Your task to perform on an android device: When is my next meeting? Image 0: 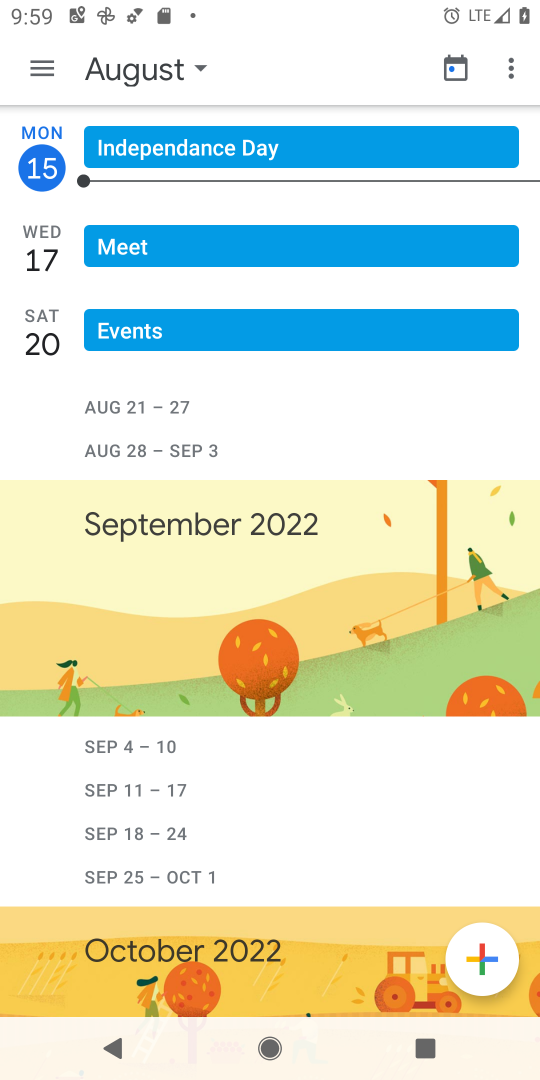
Step 0: press home button
Your task to perform on an android device: When is my next meeting? Image 1: 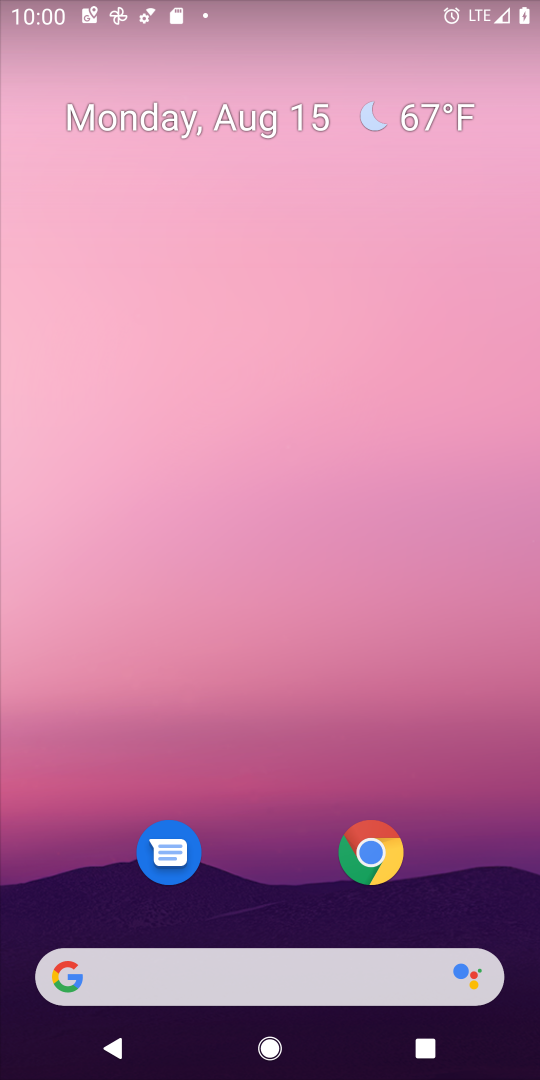
Step 1: drag from (207, 987) to (295, 38)
Your task to perform on an android device: When is my next meeting? Image 2: 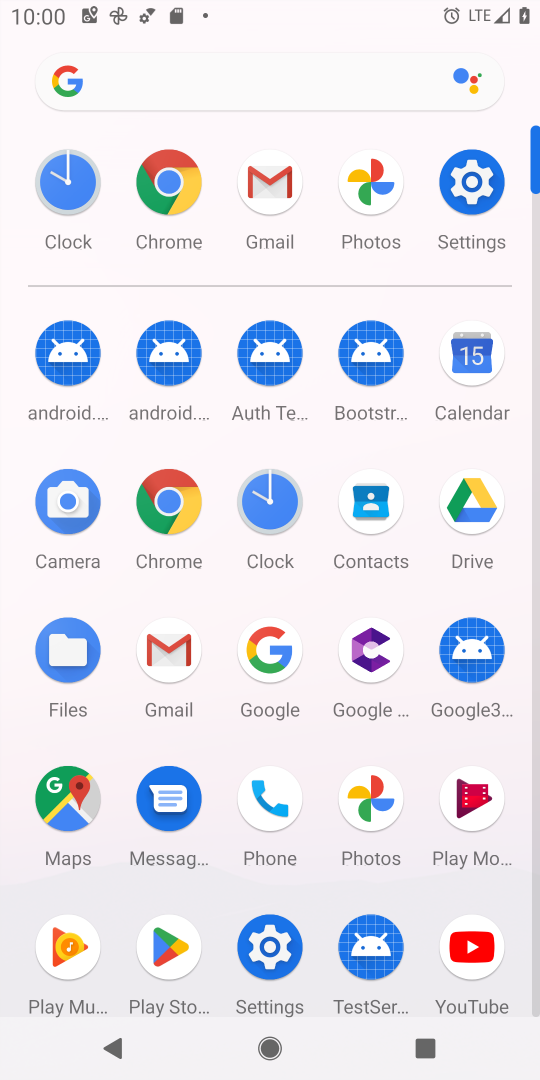
Step 2: click (471, 356)
Your task to perform on an android device: When is my next meeting? Image 3: 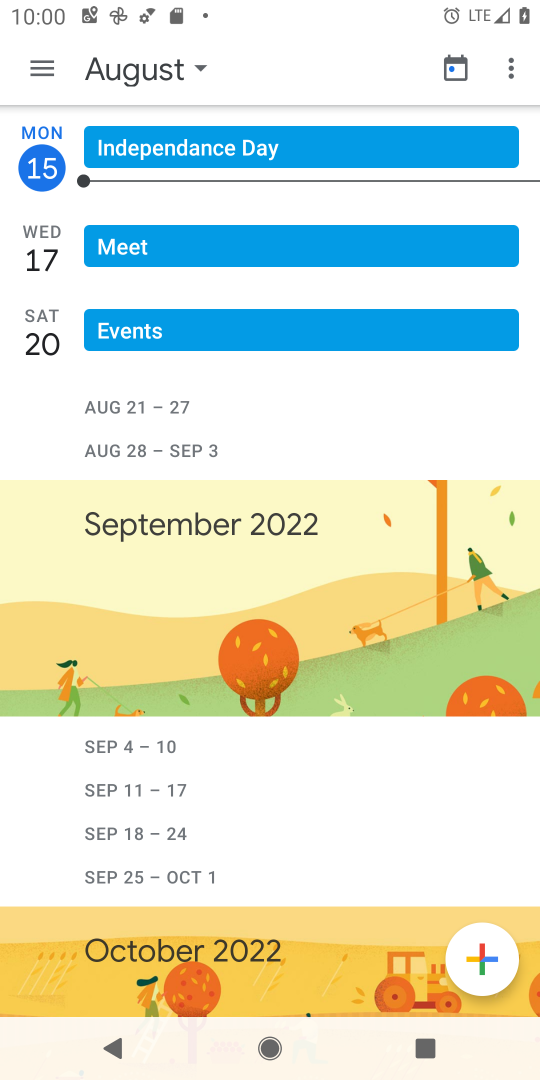
Step 3: click (460, 72)
Your task to perform on an android device: When is my next meeting? Image 4: 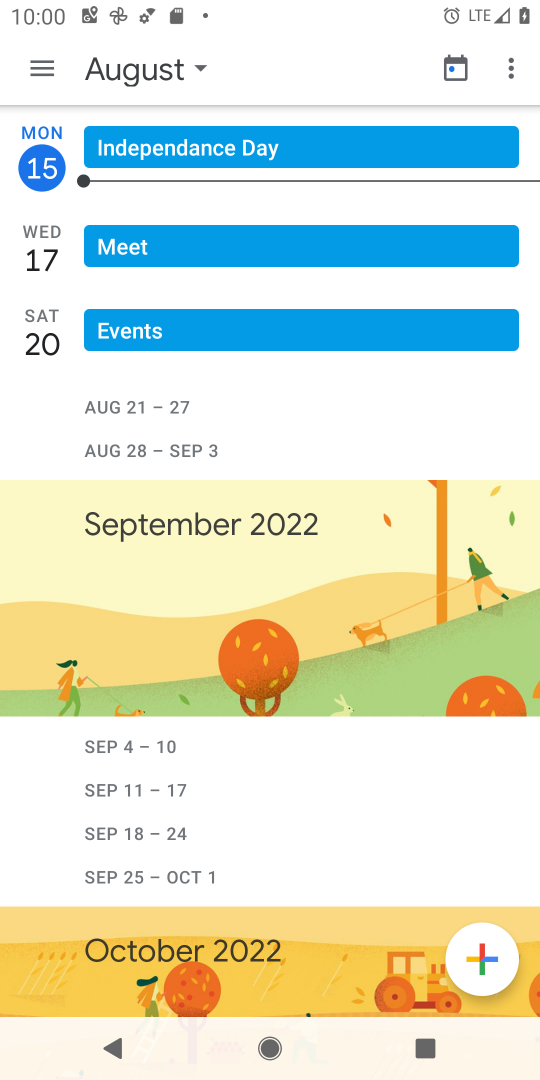
Step 4: click (192, 71)
Your task to perform on an android device: When is my next meeting? Image 5: 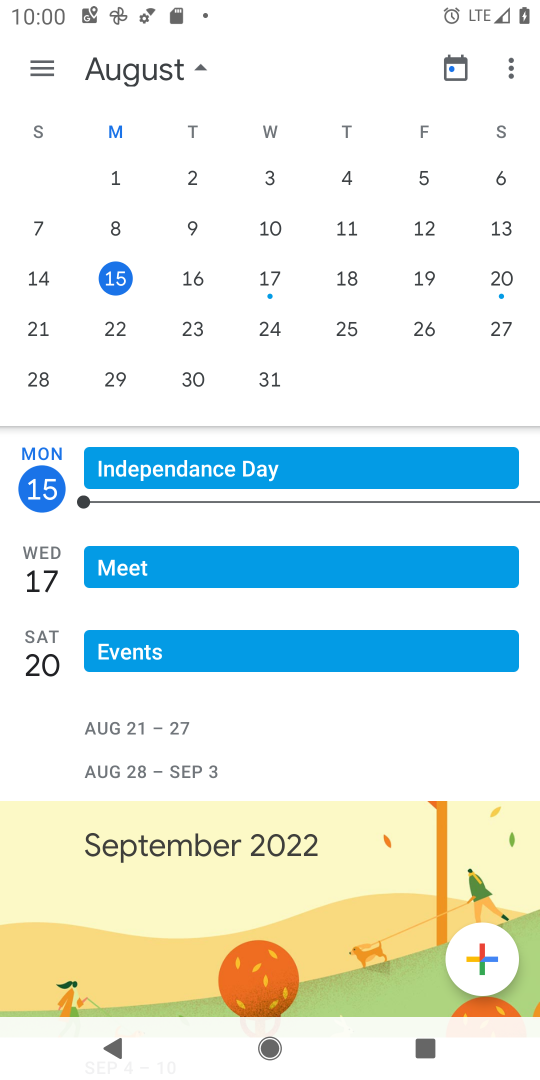
Step 5: click (255, 283)
Your task to perform on an android device: When is my next meeting? Image 6: 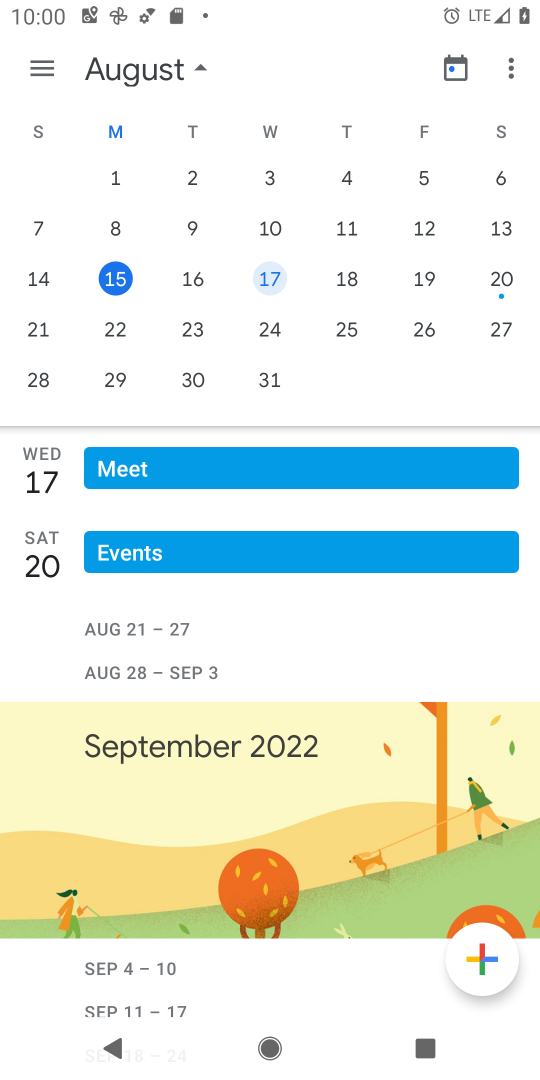
Step 6: click (31, 66)
Your task to perform on an android device: When is my next meeting? Image 7: 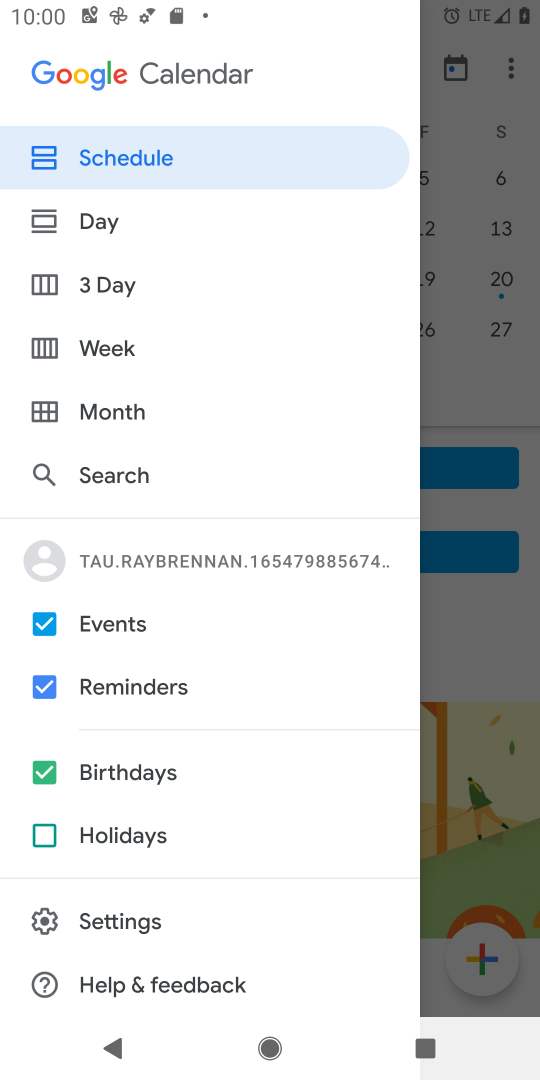
Step 7: click (125, 165)
Your task to perform on an android device: When is my next meeting? Image 8: 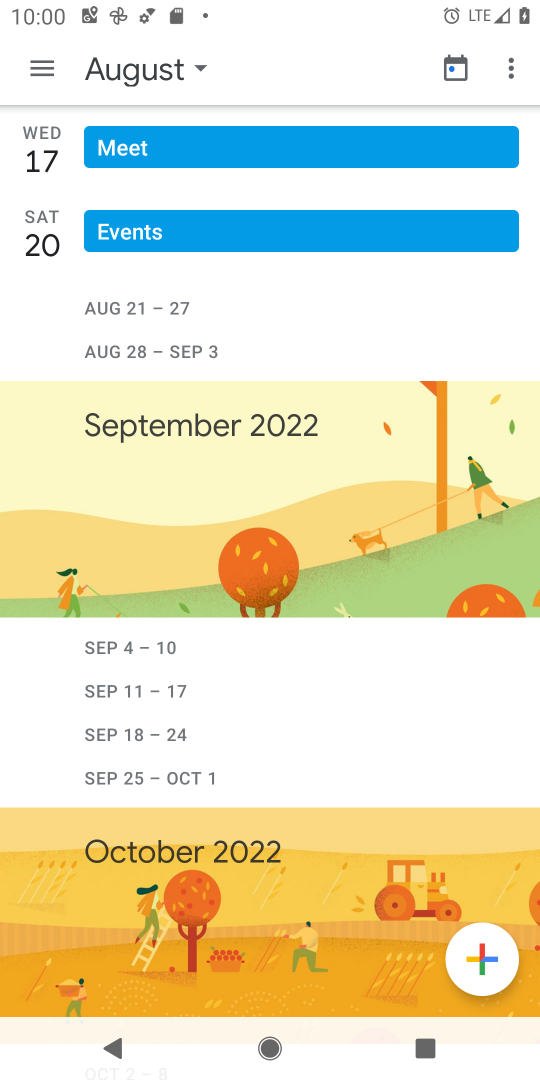
Step 8: task complete